Your task to perform on an android device: toggle improve location accuracy Image 0: 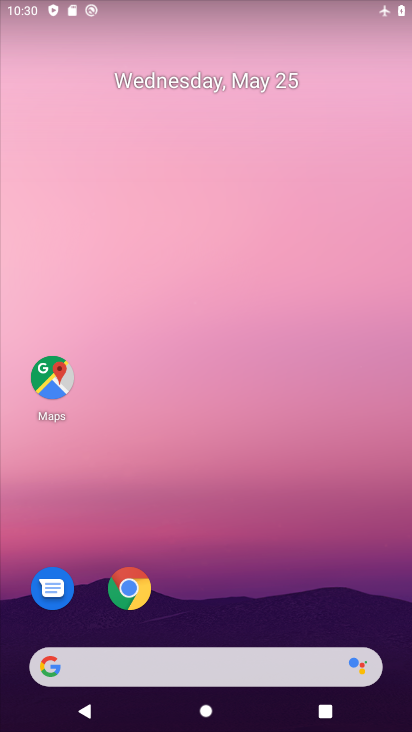
Step 0: drag from (316, 511) to (219, 76)
Your task to perform on an android device: toggle improve location accuracy Image 1: 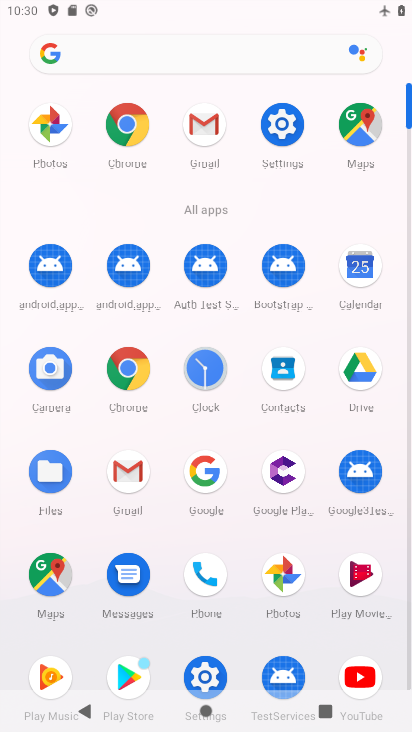
Step 1: click (270, 118)
Your task to perform on an android device: toggle improve location accuracy Image 2: 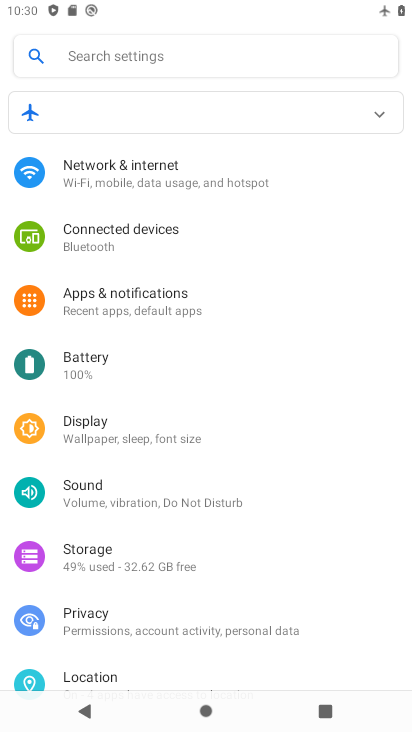
Step 2: drag from (189, 568) to (169, 144)
Your task to perform on an android device: toggle improve location accuracy Image 3: 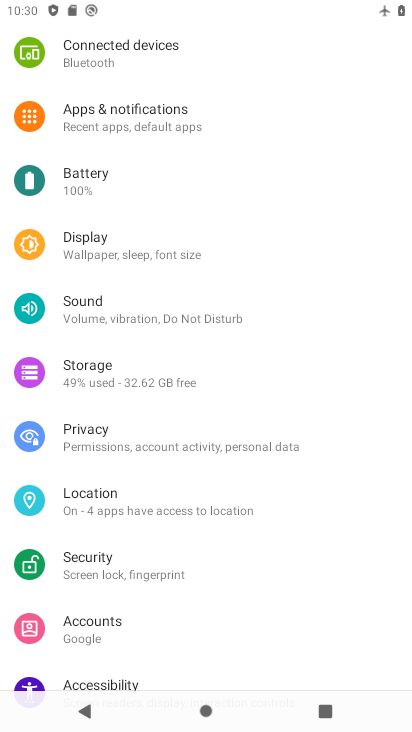
Step 3: click (118, 500)
Your task to perform on an android device: toggle improve location accuracy Image 4: 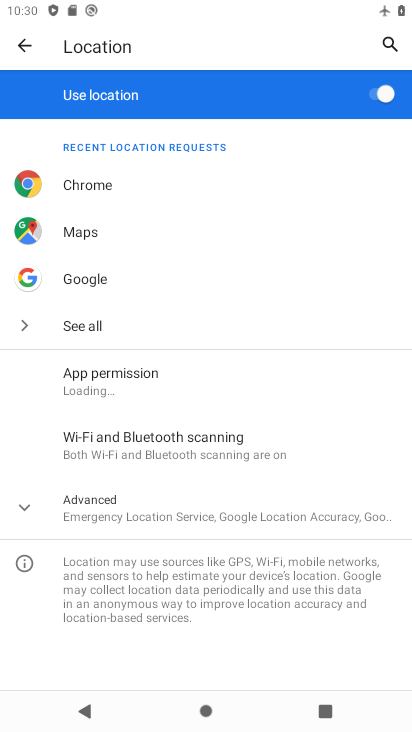
Step 4: drag from (124, 611) to (161, 464)
Your task to perform on an android device: toggle improve location accuracy Image 5: 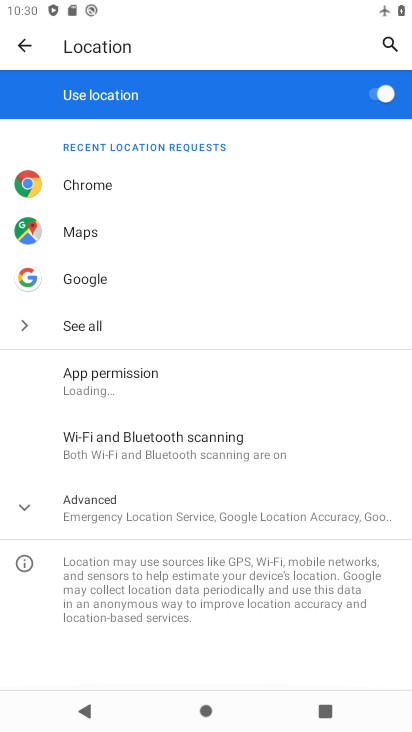
Step 5: click (133, 507)
Your task to perform on an android device: toggle improve location accuracy Image 6: 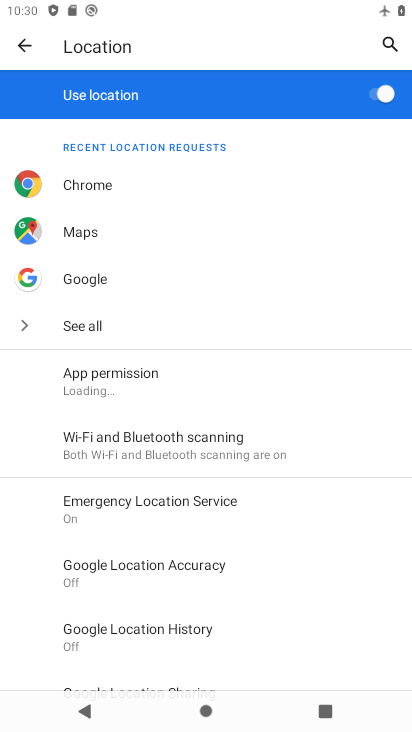
Step 6: drag from (245, 642) to (303, 310)
Your task to perform on an android device: toggle improve location accuracy Image 7: 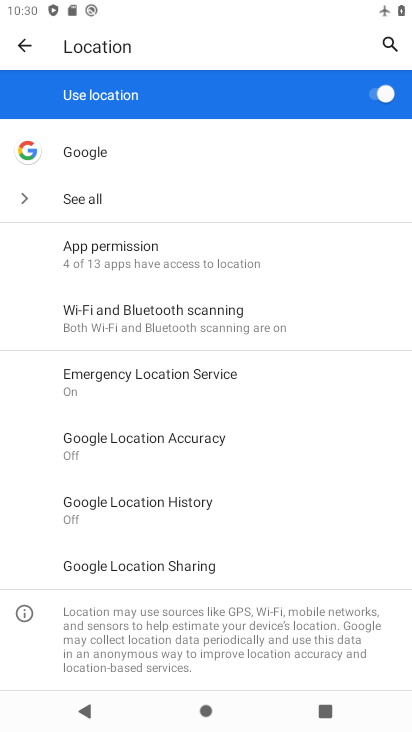
Step 7: click (183, 451)
Your task to perform on an android device: toggle improve location accuracy Image 8: 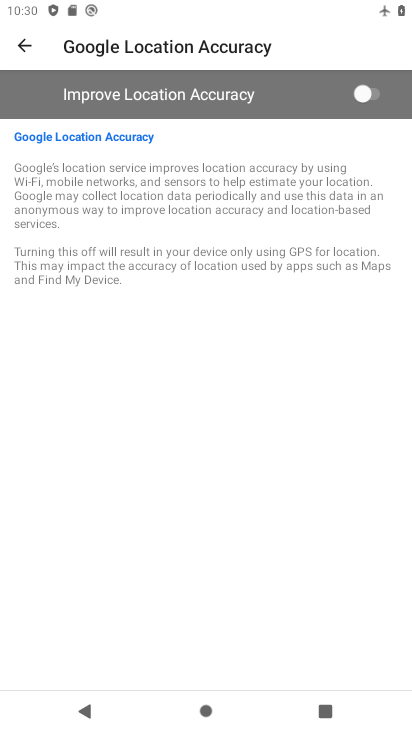
Step 8: task complete